Your task to perform on an android device: Open Android settings Image 0: 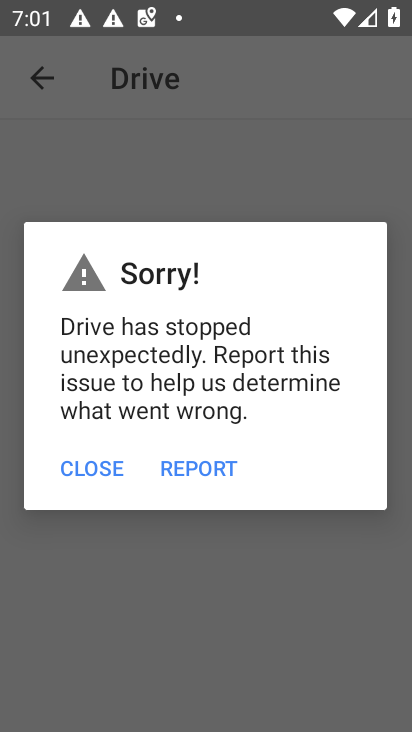
Step 0: press home button
Your task to perform on an android device: Open Android settings Image 1: 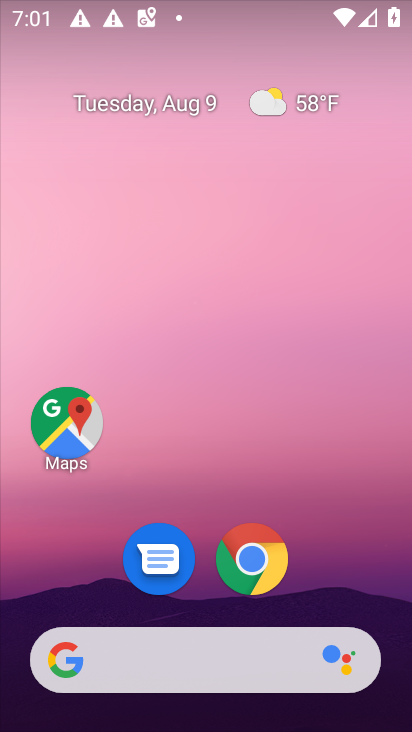
Step 1: drag from (196, 376) to (175, 48)
Your task to perform on an android device: Open Android settings Image 2: 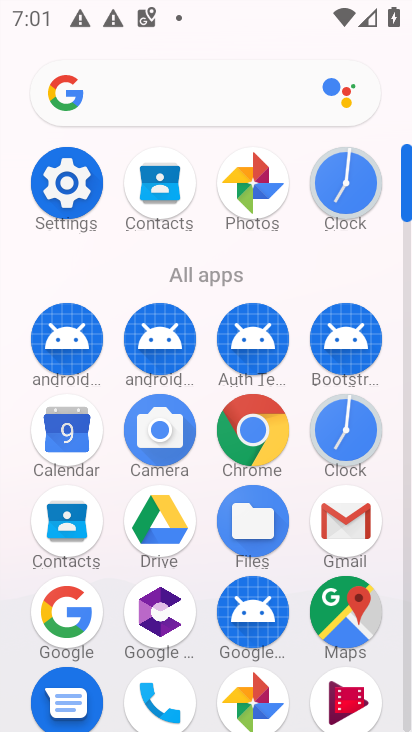
Step 2: click (65, 183)
Your task to perform on an android device: Open Android settings Image 3: 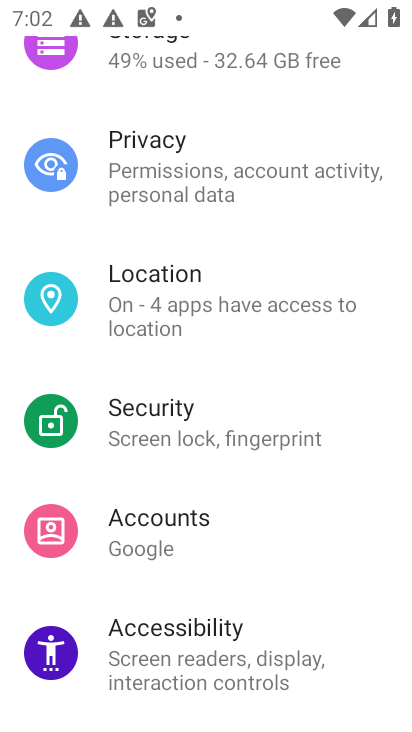
Step 3: drag from (274, 594) to (223, 253)
Your task to perform on an android device: Open Android settings Image 4: 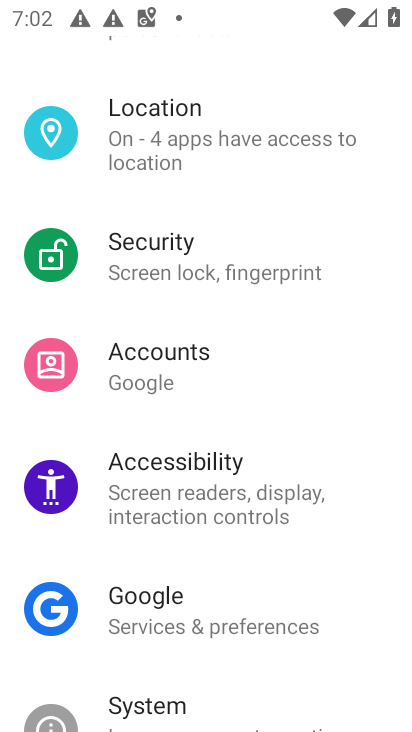
Step 4: drag from (231, 673) to (251, 188)
Your task to perform on an android device: Open Android settings Image 5: 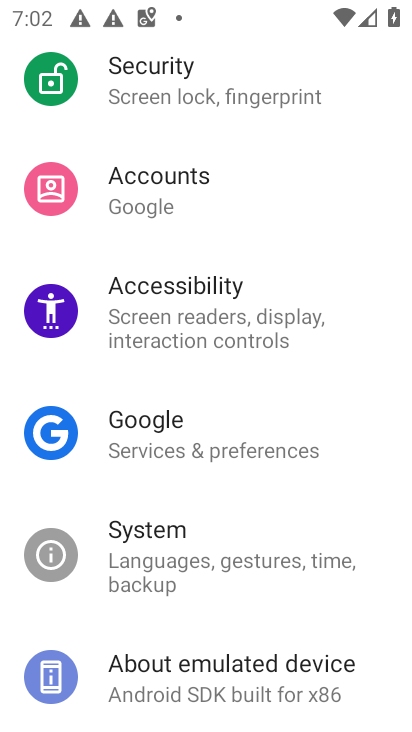
Step 5: click (182, 663)
Your task to perform on an android device: Open Android settings Image 6: 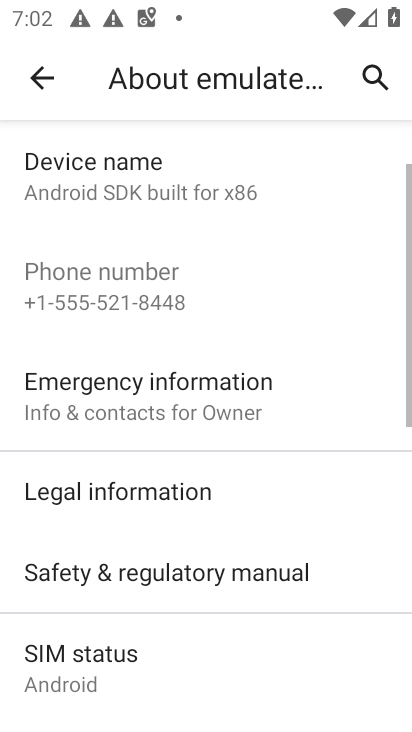
Step 6: drag from (148, 691) to (201, 104)
Your task to perform on an android device: Open Android settings Image 7: 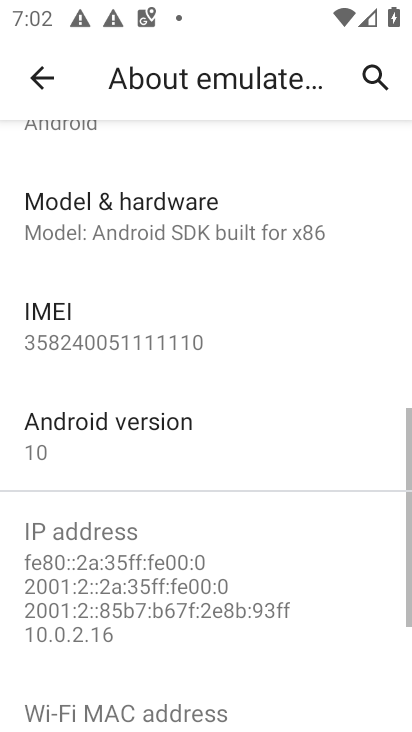
Step 7: click (95, 463)
Your task to perform on an android device: Open Android settings Image 8: 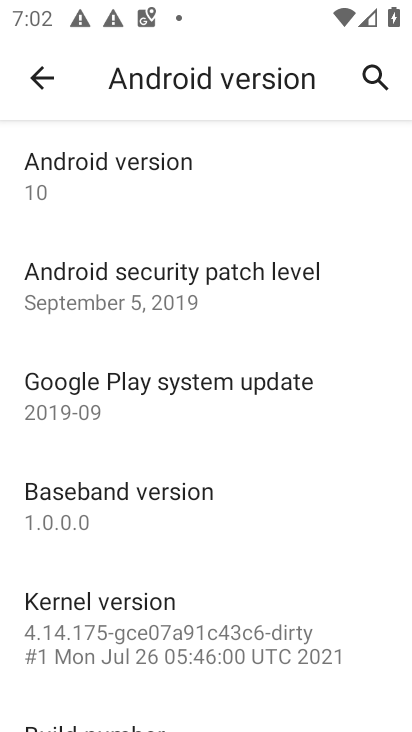
Step 8: task complete